Your task to perform on an android device: turn off smart reply in the gmail app Image 0: 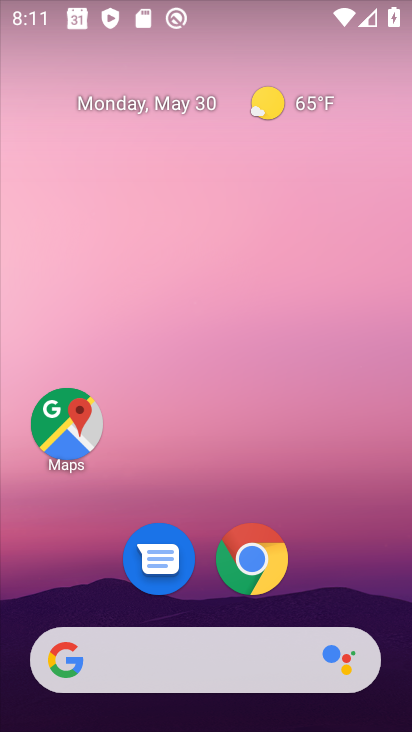
Step 0: drag from (221, 498) to (266, 26)
Your task to perform on an android device: turn off smart reply in the gmail app Image 1: 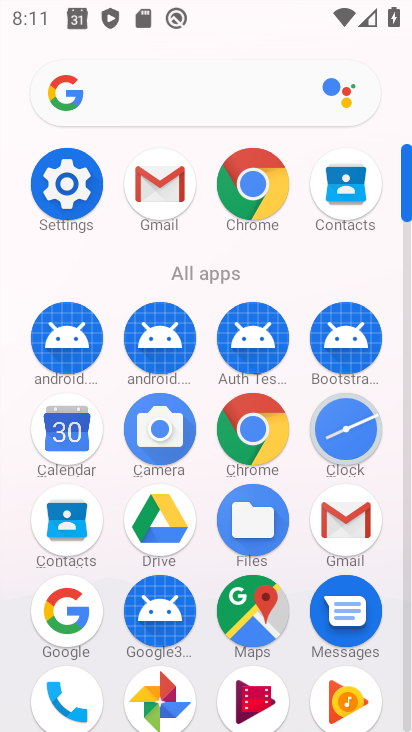
Step 1: click (174, 189)
Your task to perform on an android device: turn off smart reply in the gmail app Image 2: 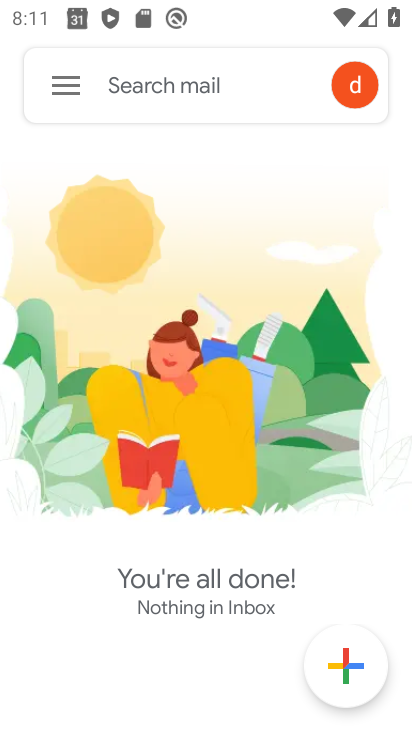
Step 2: click (59, 89)
Your task to perform on an android device: turn off smart reply in the gmail app Image 3: 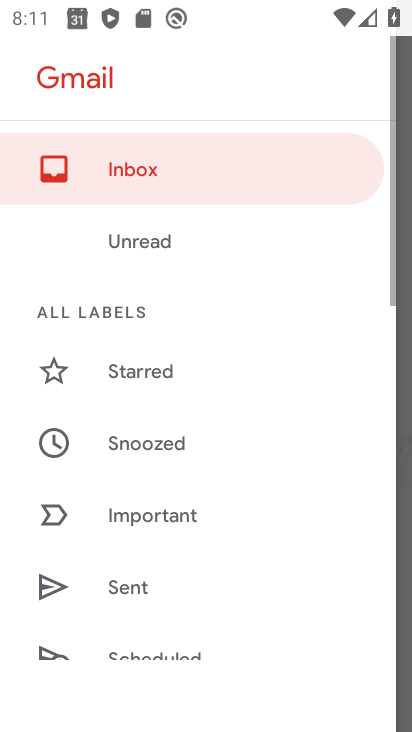
Step 3: drag from (157, 631) to (208, 125)
Your task to perform on an android device: turn off smart reply in the gmail app Image 4: 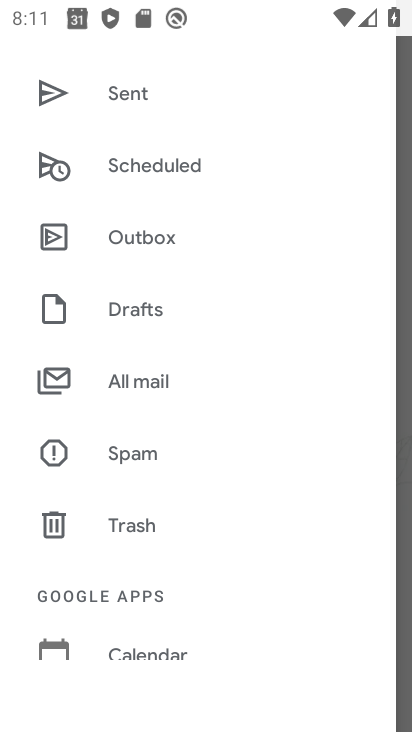
Step 4: drag from (163, 602) to (293, 143)
Your task to perform on an android device: turn off smart reply in the gmail app Image 5: 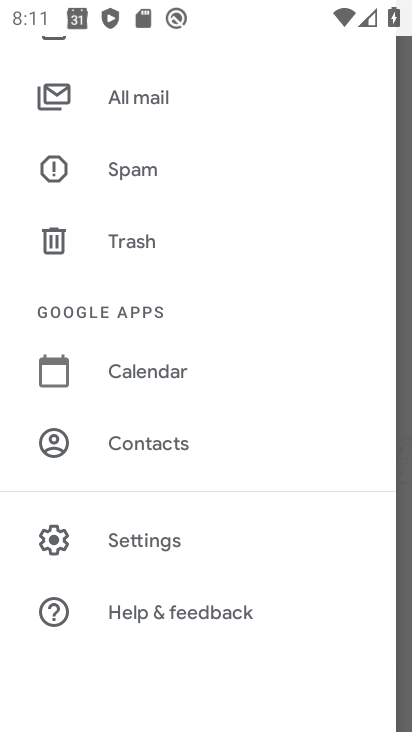
Step 5: click (138, 543)
Your task to perform on an android device: turn off smart reply in the gmail app Image 6: 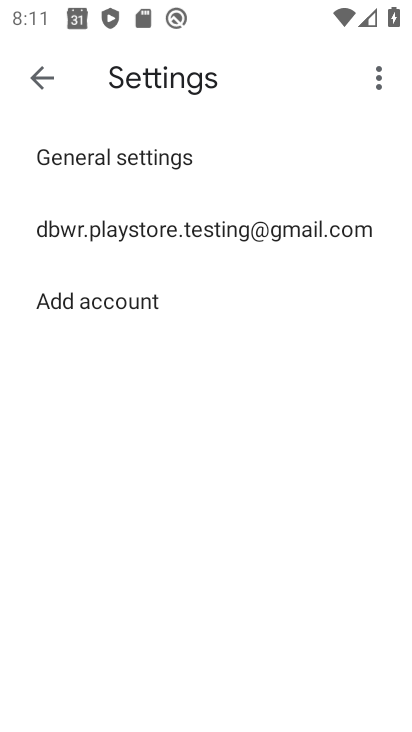
Step 6: click (130, 224)
Your task to perform on an android device: turn off smart reply in the gmail app Image 7: 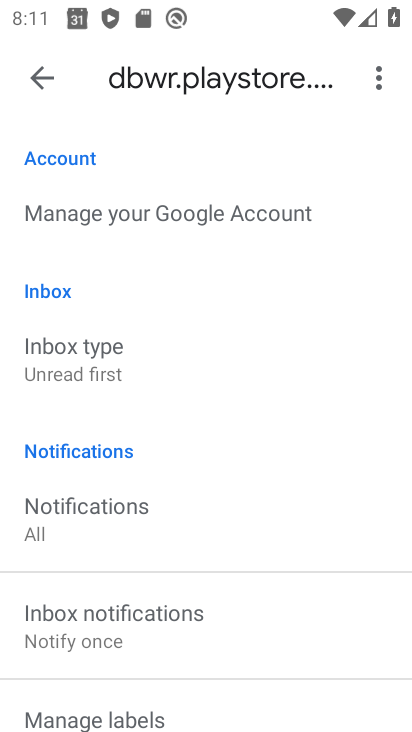
Step 7: drag from (123, 657) to (192, 198)
Your task to perform on an android device: turn off smart reply in the gmail app Image 8: 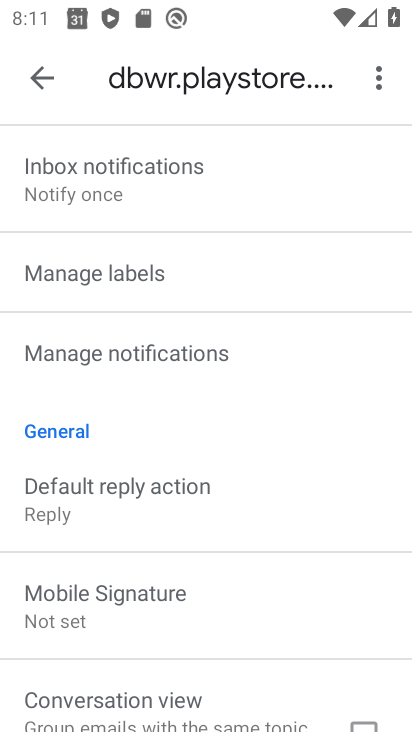
Step 8: drag from (145, 651) to (298, 79)
Your task to perform on an android device: turn off smart reply in the gmail app Image 9: 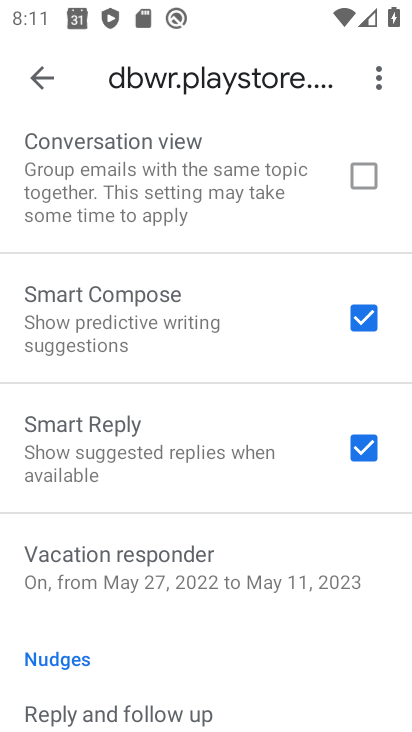
Step 9: click (368, 442)
Your task to perform on an android device: turn off smart reply in the gmail app Image 10: 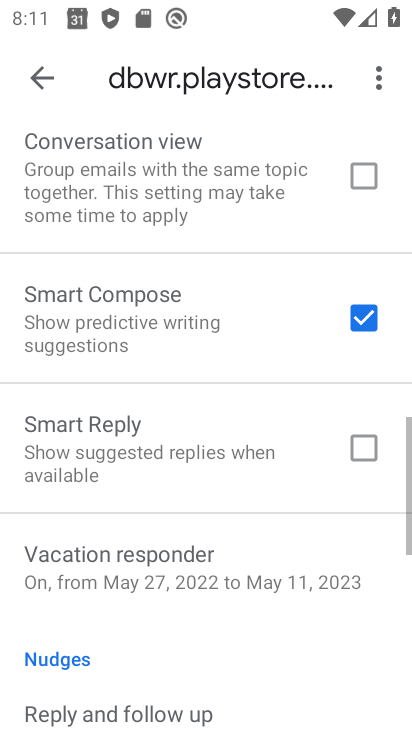
Step 10: task complete